Your task to perform on an android device: turn on the 24-hour format for clock Image 0: 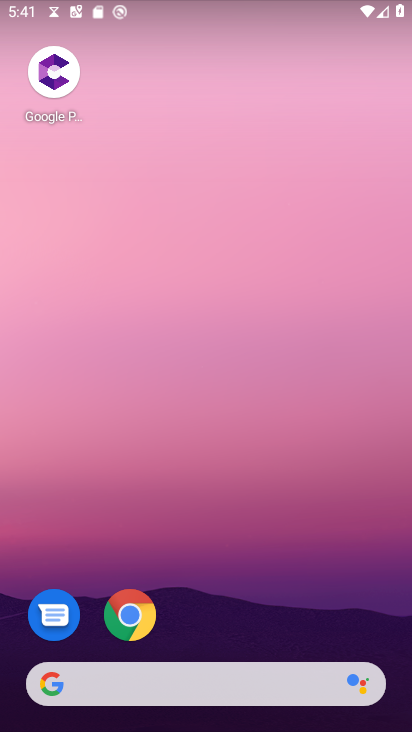
Step 0: drag from (219, 653) to (214, 111)
Your task to perform on an android device: turn on the 24-hour format for clock Image 1: 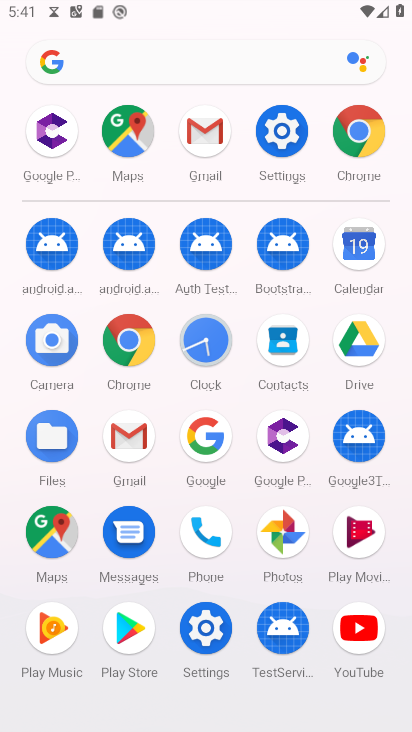
Step 1: click (204, 350)
Your task to perform on an android device: turn on the 24-hour format for clock Image 2: 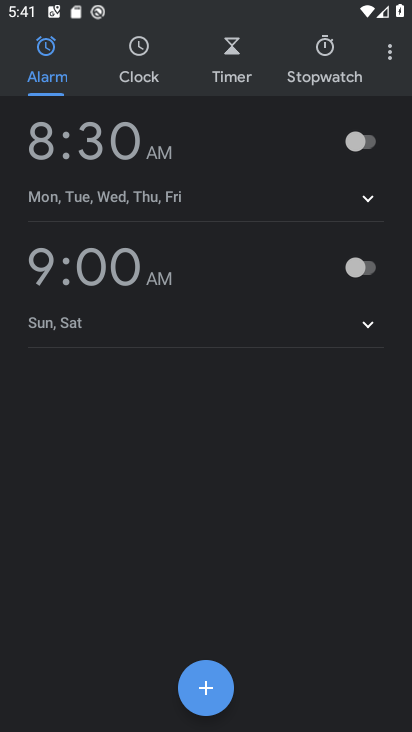
Step 2: click (379, 48)
Your task to perform on an android device: turn on the 24-hour format for clock Image 3: 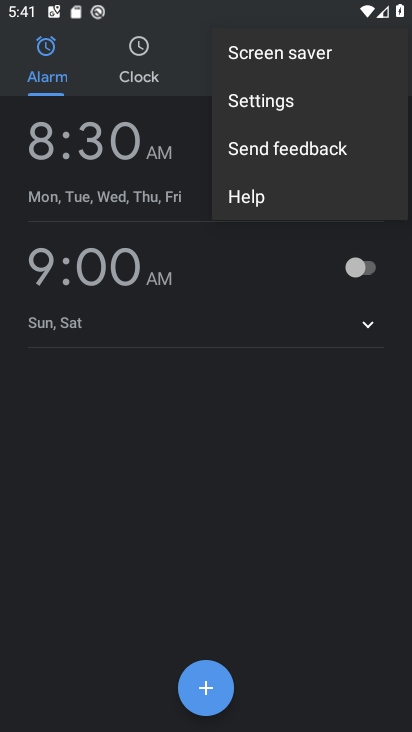
Step 3: click (260, 97)
Your task to perform on an android device: turn on the 24-hour format for clock Image 4: 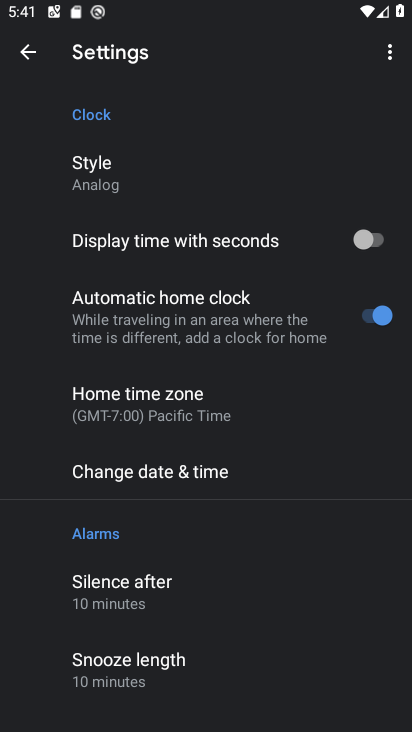
Step 4: click (203, 476)
Your task to perform on an android device: turn on the 24-hour format for clock Image 5: 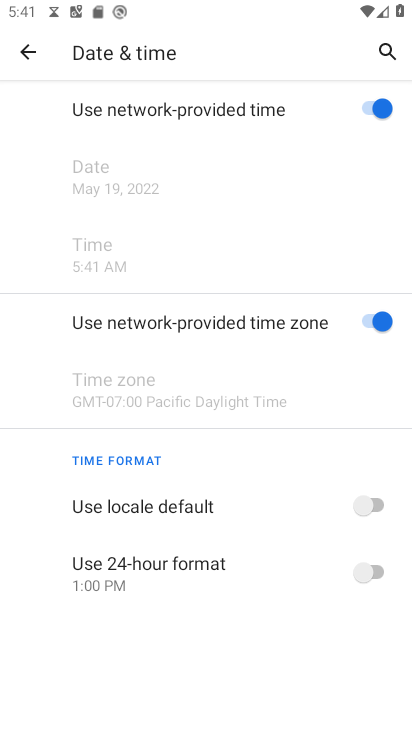
Step 5: click (372, 568)
Your task to perform on an android device: turn on the 24-hour format for clock Image 6: 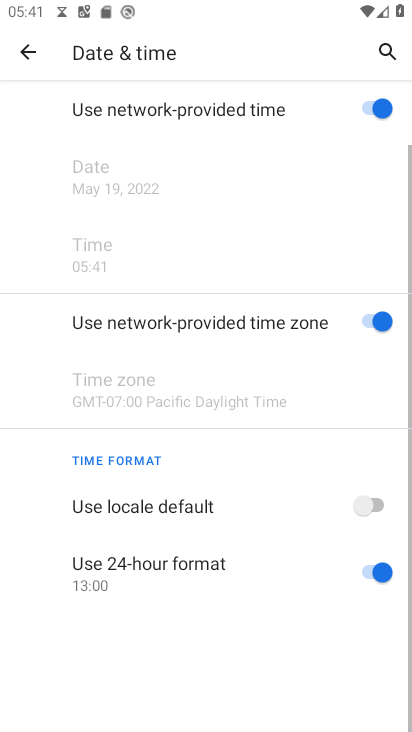
Step 6: task complete